Your task to perform on an android device: Open accessibility settings Image 0: 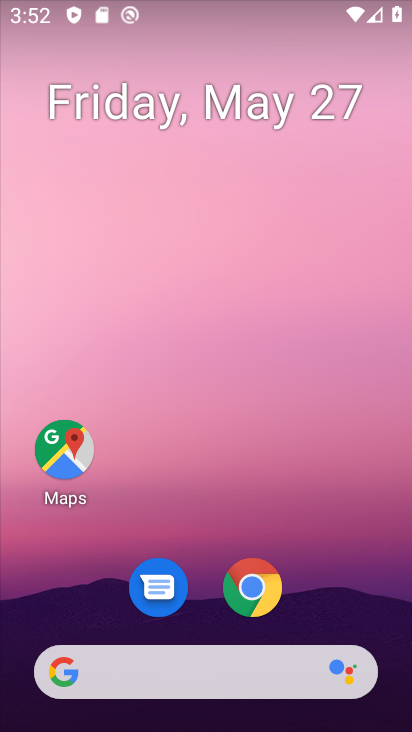
Step 0: drag from (344, 559) to (236, 76)
Your task to perform on an android device: Open accessibility settings Image 1: 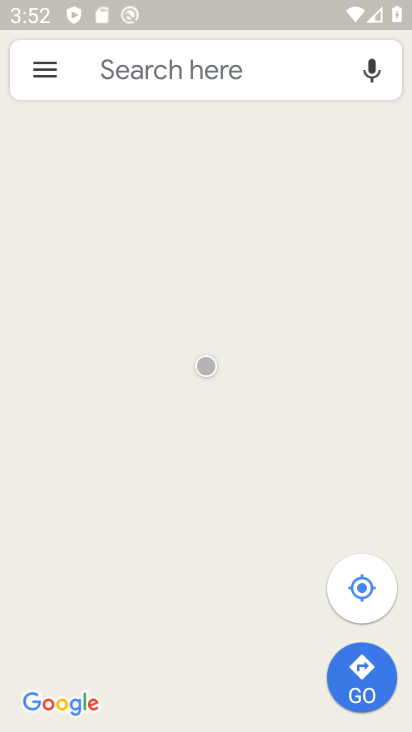
Step 1: press back button
Your task to perform on an android device: Open accessibility settings Image 2: 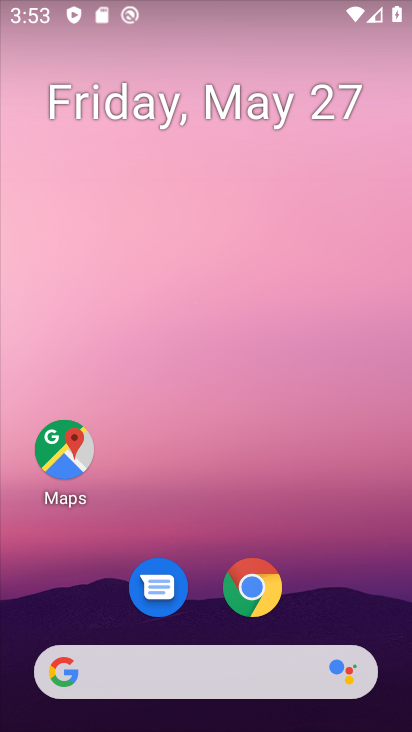
Step 2: drag from (326, 594) to (231, 124)
Your task to perform on an android device: Open accessibility settings Image 3: 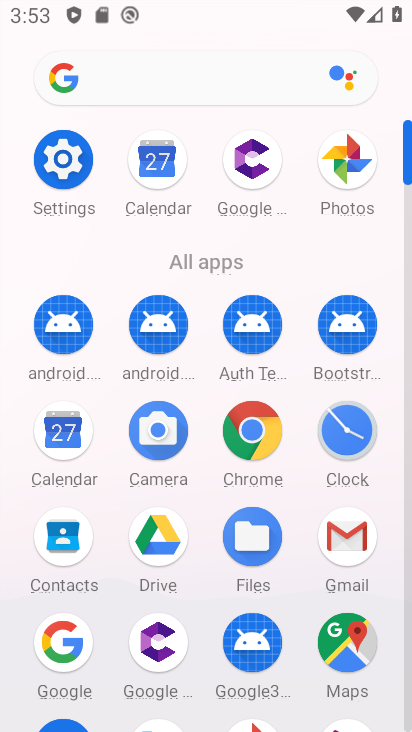
Step 3: drag from (10, 552) to (24, 199)
Your task to perform on an android device: Open accessibility settings Image 4: 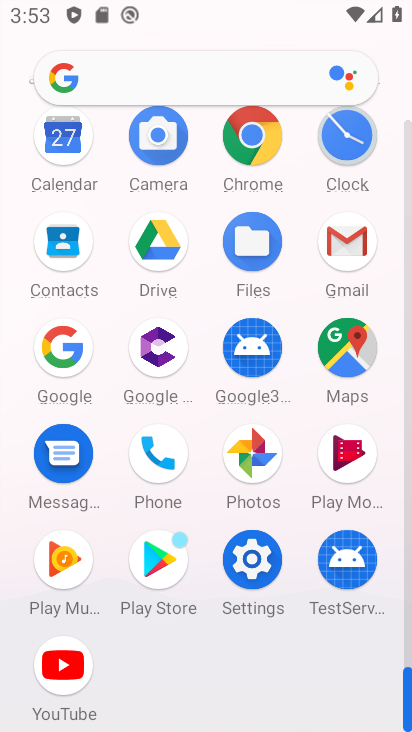
Step 4: click (249, 553)
Your task to perform on an android device: Open accessibility settings Image 5: 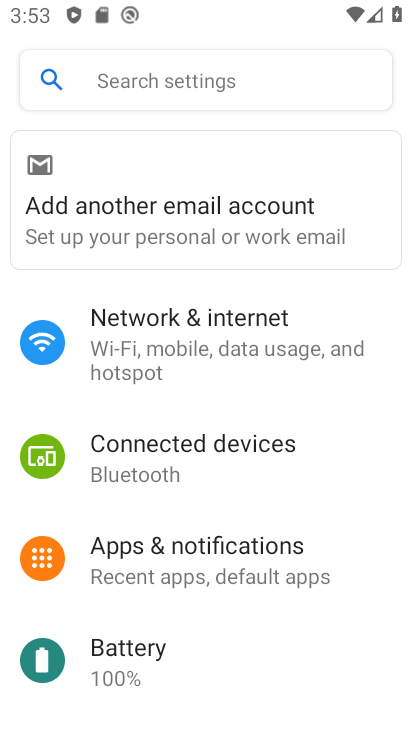
Step 5: drag from (368, 558) to (335, 224)
Your task to perform on an android device: Open accessibility settings Image 6: 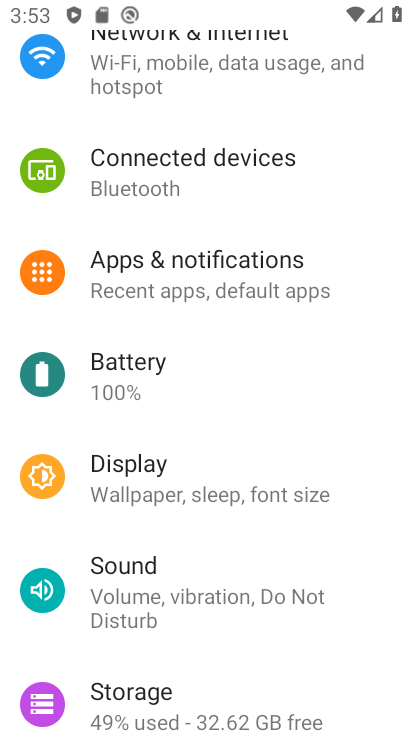
Step 6: drag from (298, 513) to (322, 162)
Your task to perform on an android device: Open accessibility settings Image 7: 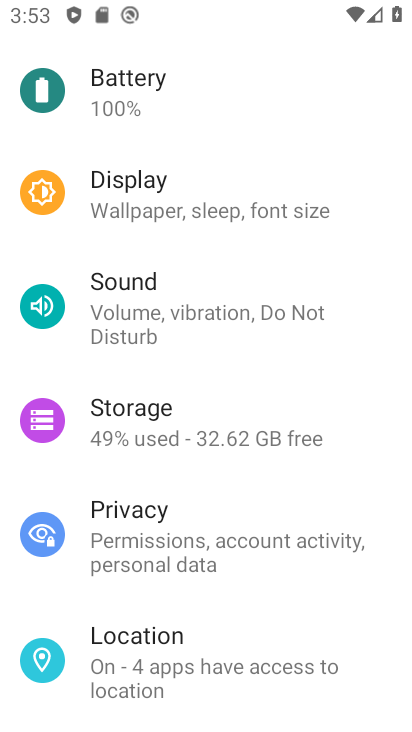
Step 7: drag from (256, 567) to (285, 186)
Your task to perform on an android device: Open accessibility settings Image 8: 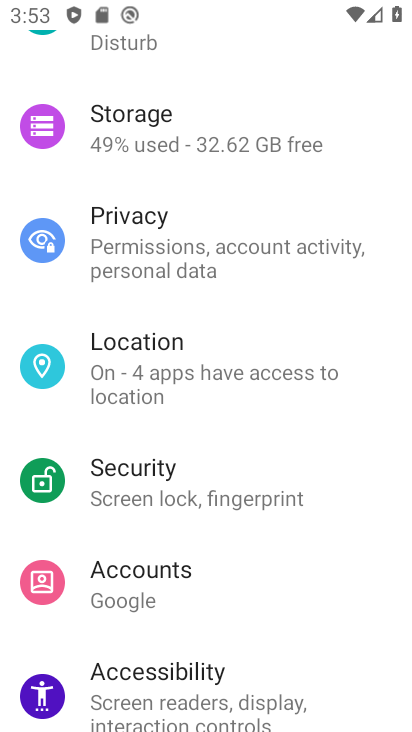
Step 8: click (204, 678)
Your task to perform on an android device: Open accessibility settings Image 9: 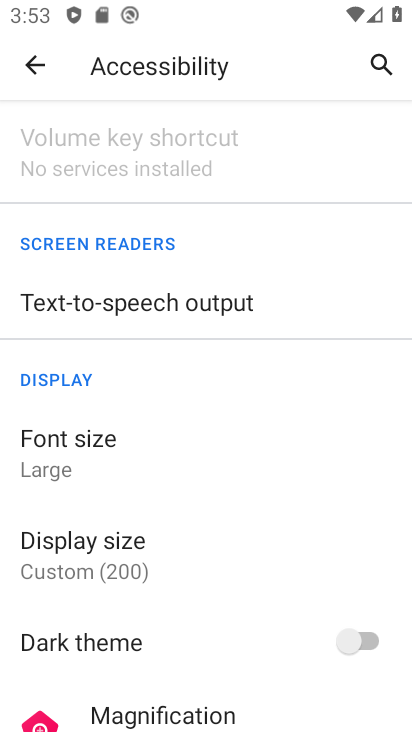
Step 9: task complete